Your task to perform on an android device: Open the calendar app, open the side menu, and click the "Day" option Image 0: 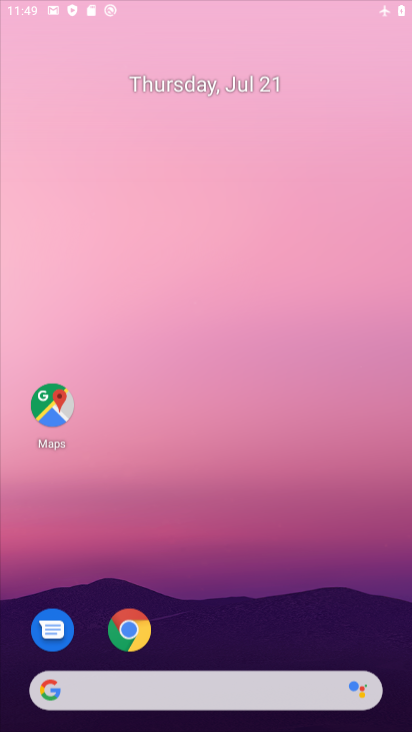
Step 0: press home button
Your task to perform on an android device: Open the calendar app, open the side menu, and click the "Day" option Image 1: 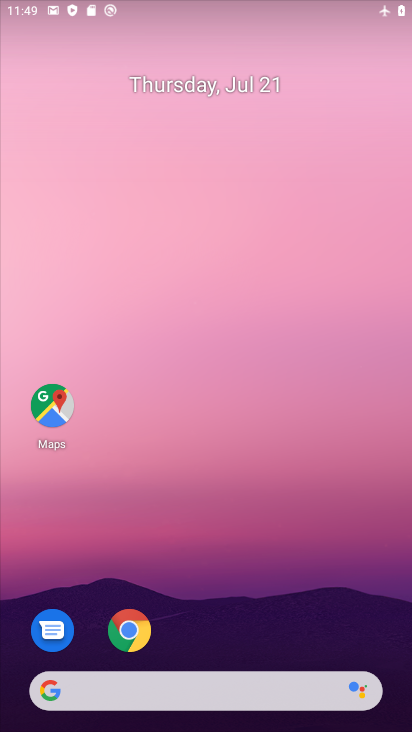
Step 1: drag from (305, 22) to (341, 549)
Your task to perform on an android device: Open the calendar app, open the side menu, and click the "Day" option Image 2: 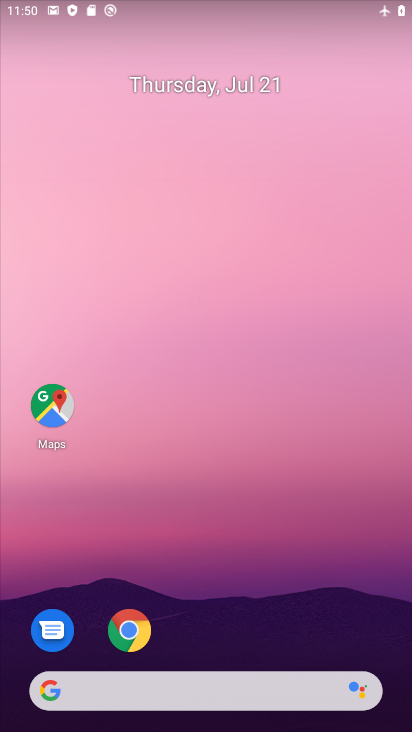
Step 2: drag from (339, 640) to (101, 25)
Your task to perform on an android device: Open the calendar app, open the side menu, and click the "Day" option Image 3: 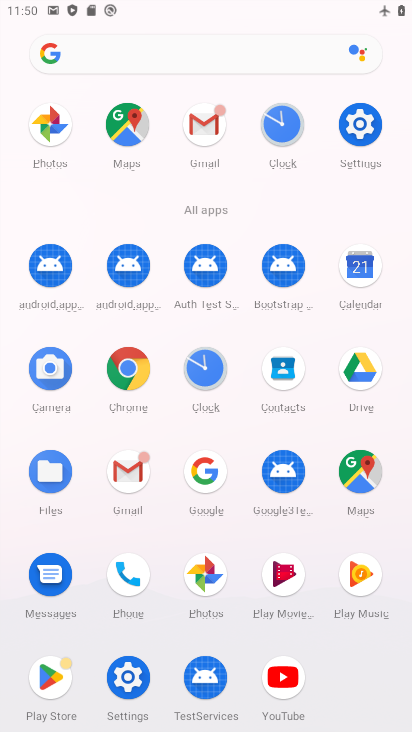
Step 3: click (369, 295)
Your task to perform on an android device: Open the calendar app, open the side menu, and click the "Day" option Image 4: 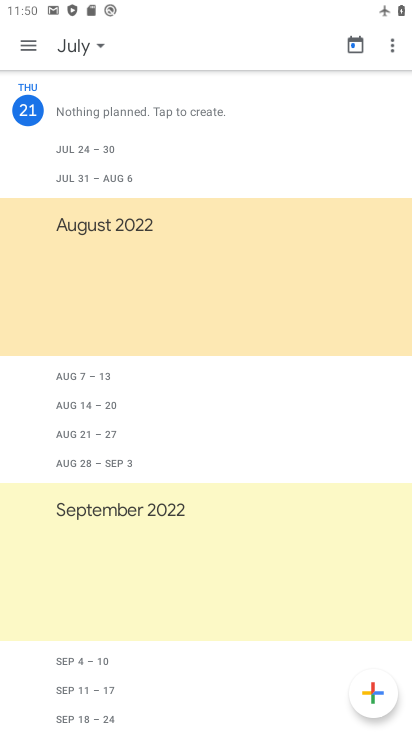
Step 4: click (28, 57)
Your task to perform on an android device: Open the calendar app, open the side menu, and click the "Day" option Image 5: 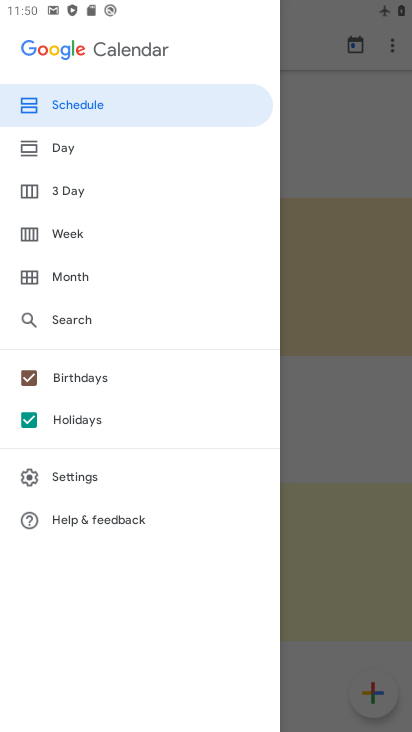
Step 5: click (59, 144)
Your task to perform on an android device: Open the calendar app, open the side menu, and click the "Day" option Image 6: 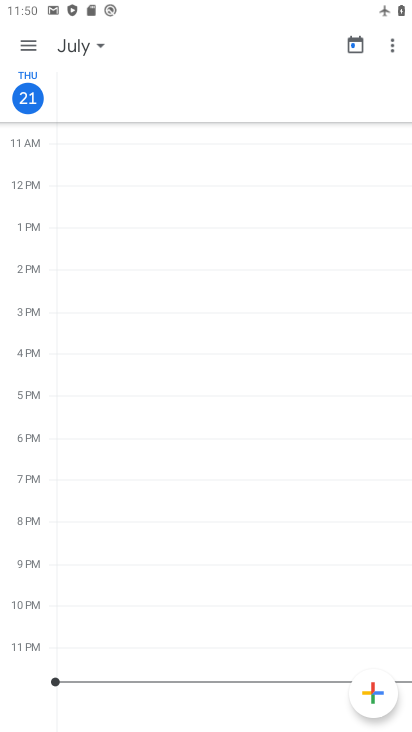
Step 6: task complete